Your task to perform on an android device: turn on showing notifications on the lock screen Image 0: 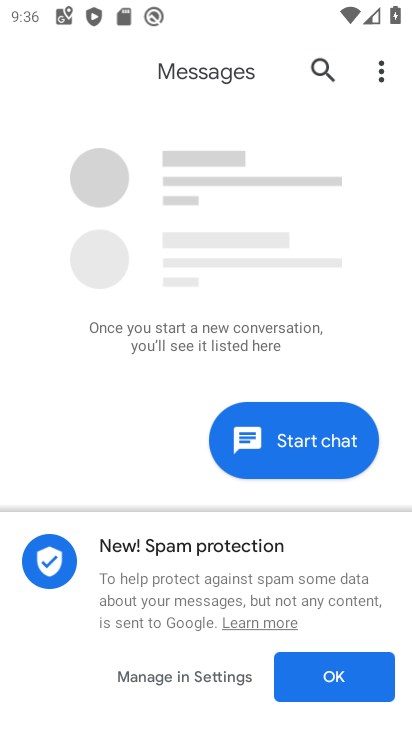
Step 0: press home button
Your task to perform on an android device: turn on showing notifications on the lock screen Image 1: 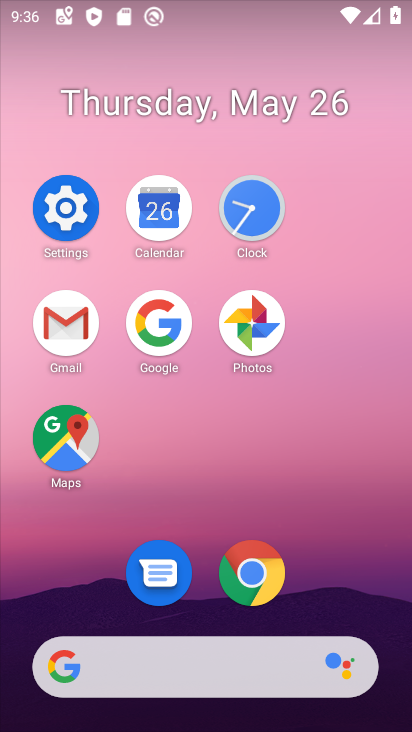
Step 1: click (67, 207)
Your task to perform on an android device: turn on showing notifications on the lock screen Image 2: 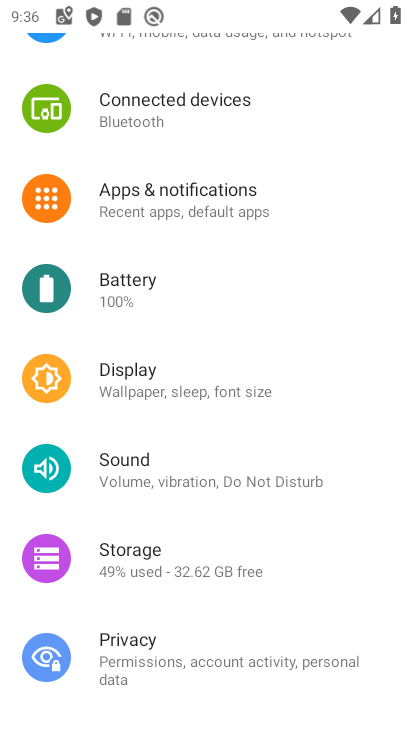
Step 2: click (225, 225)
Your task to perform on an android device: turn on showing notifications on the lock screen Image 3: 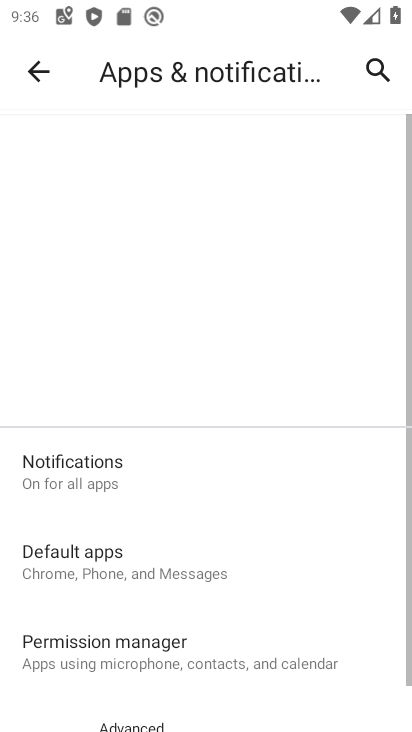
Step 3: click (155, 472)
Your task to perform on an android device: turn on showing notifications on the lock screen Image 4: 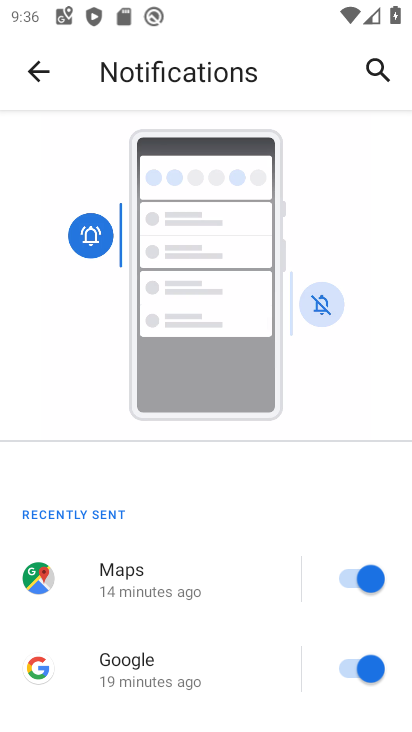
Step 4: drag from (263, 545) to (293, 138)
Your task to perform on an android device: turn on showing notifications on the lock screen Image 5: 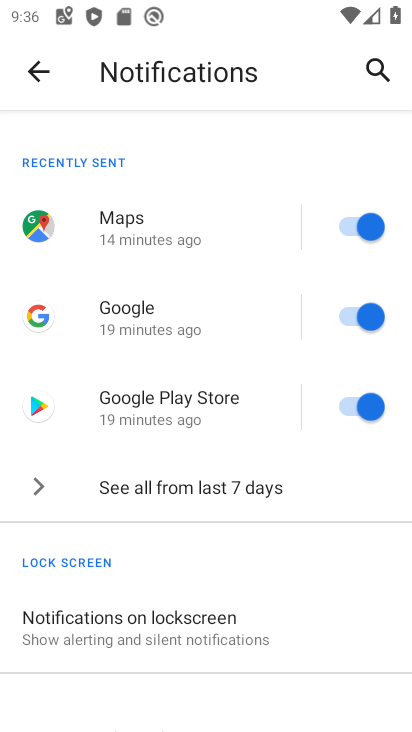
Step 5: click (216, 619)
Your task to perform on an android device: turn on showing notifications on the lock screen Image 6: 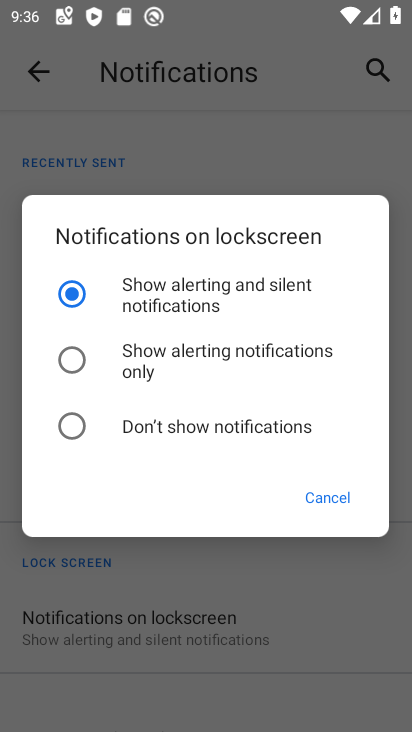
Step 6: click (191, 431)
Your task to perform on an android device: turn on showing notifications on the lock screen Image 7: 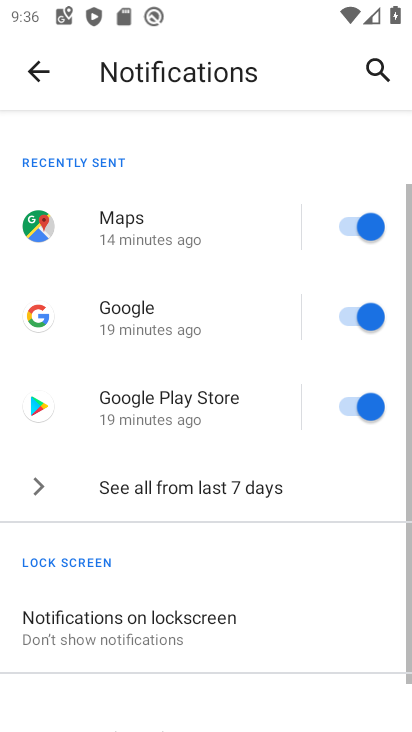
Step 7: task complete